Your task to perform on an android device: When is my next meeting? Image 0: 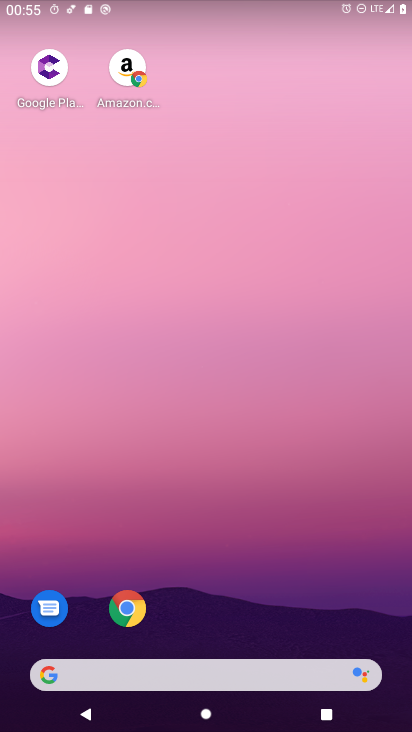
Step 0: drag from (170, 664) to (222, 181)
Your task to perform on an android device: When is my next meeting? Image 1: 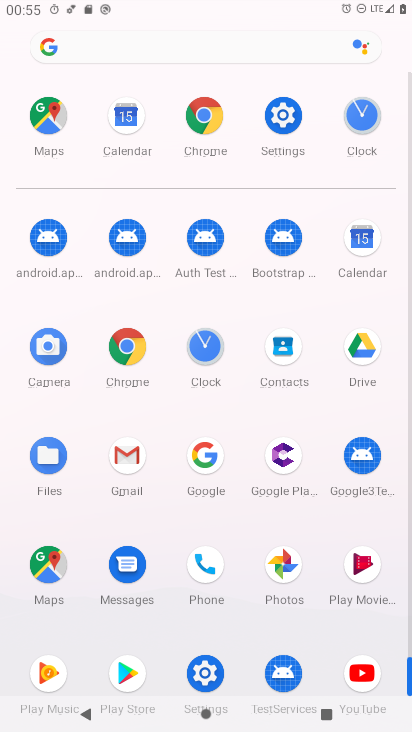
Step 1: click (359, 242)
Your task to perform on an android device: When is my next meeting? Image 2: 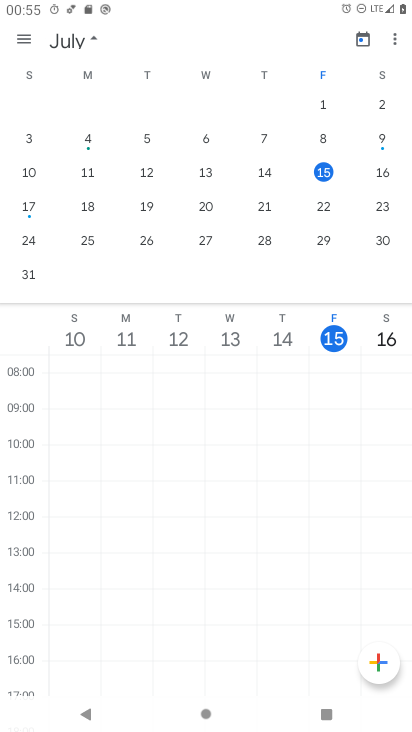
Step 2: click (88, 200)
Your task to perform on an android device: When is my next meeting? Image 3: 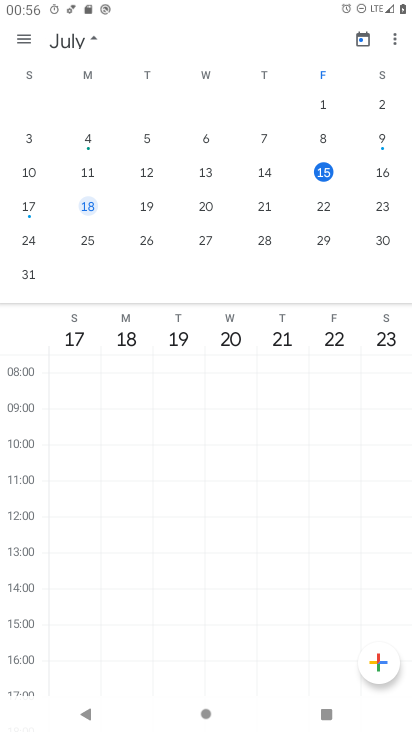
Step 3: task complete